Your task to perform on an android device: turn pop-ups on in chrome Image 0: 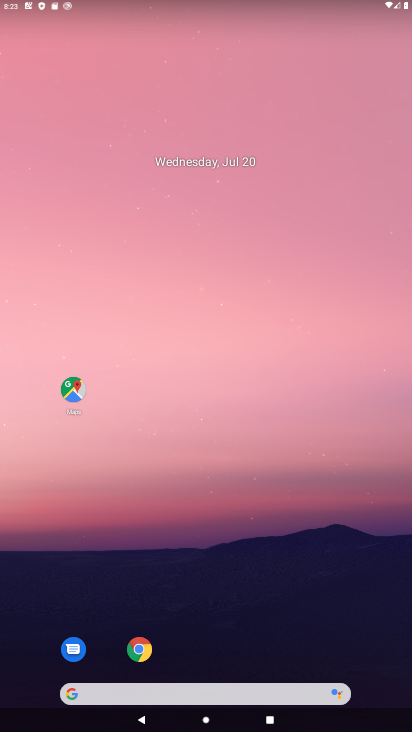
Step 0: click (140, 651)
Your task to perform on an android device: turn pop-ups on in chrome Image 1: 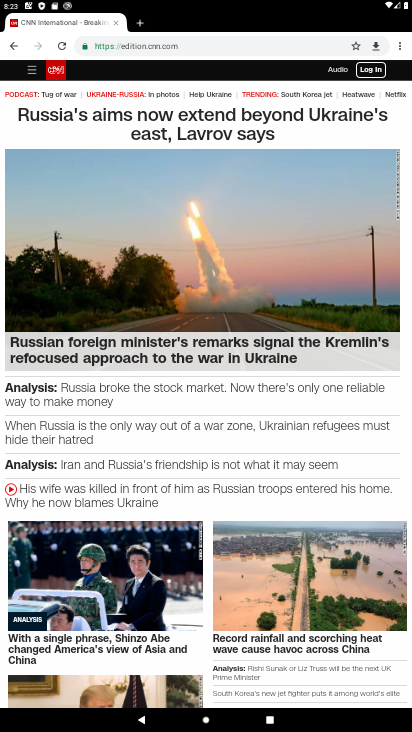
Step 1: click (400, 45)
Your task to perform on an android device: turn pop-ups on in chrome Image 2: 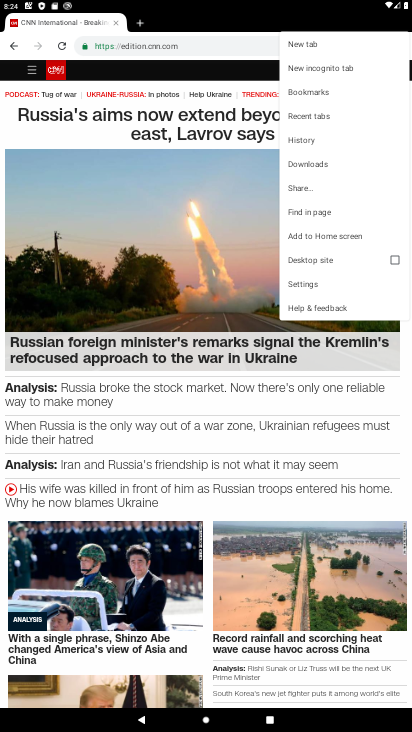
Step 2: click (309, 285)
Your task to perform on an android device: turn pop-ups on in chrome Image 3: 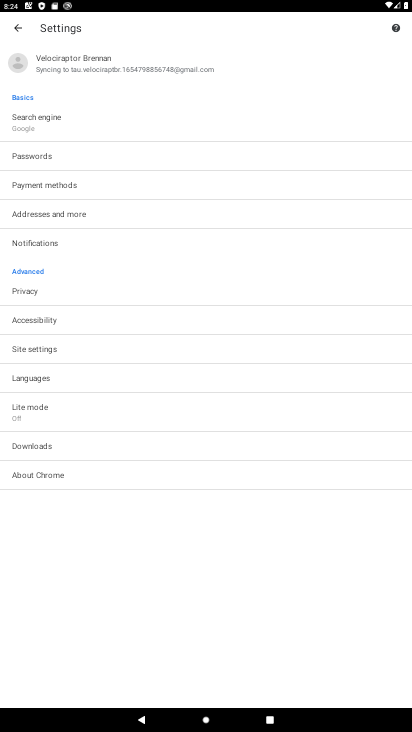
Step 3: click (37, 348)
Your task to perform on an android device: turn pop-ups on in chrome Image 4: 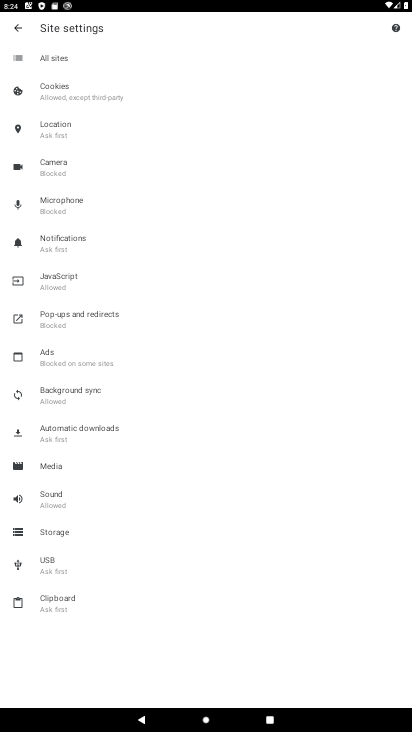
Step 4: click (87, 315)
Your task to perform on an android device: turn pop-ups on in chrome Image 5: 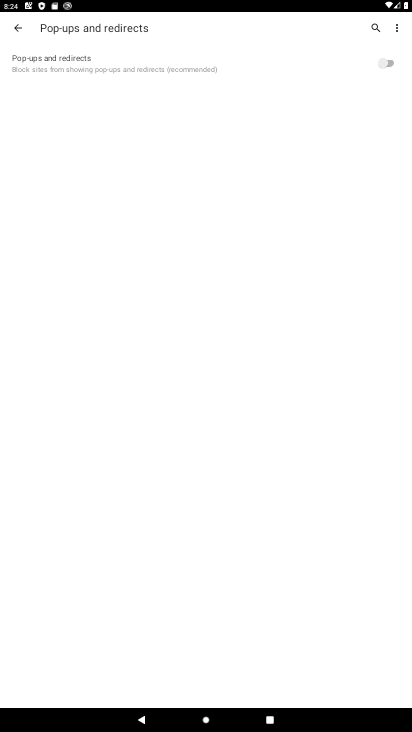
Step 5: click (384, 65)
Your task to perform on an android device: turn pop-ups on in chrome Image 6: 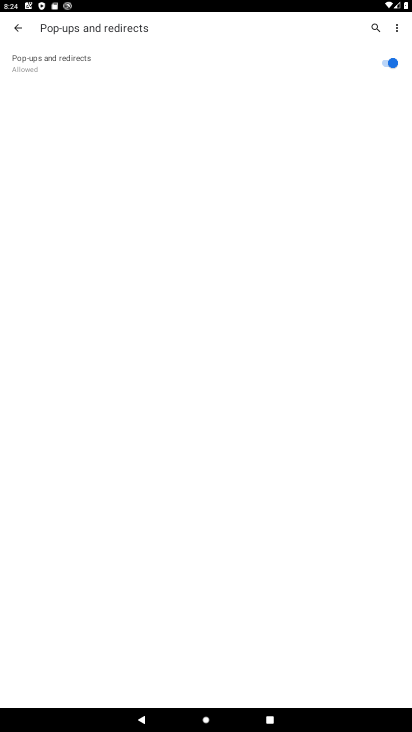
Step 6: task complete